Your task to perform on an android device: Search for "acer predator" on costco.com, select the first entry, and add it to the cart. Image 0: 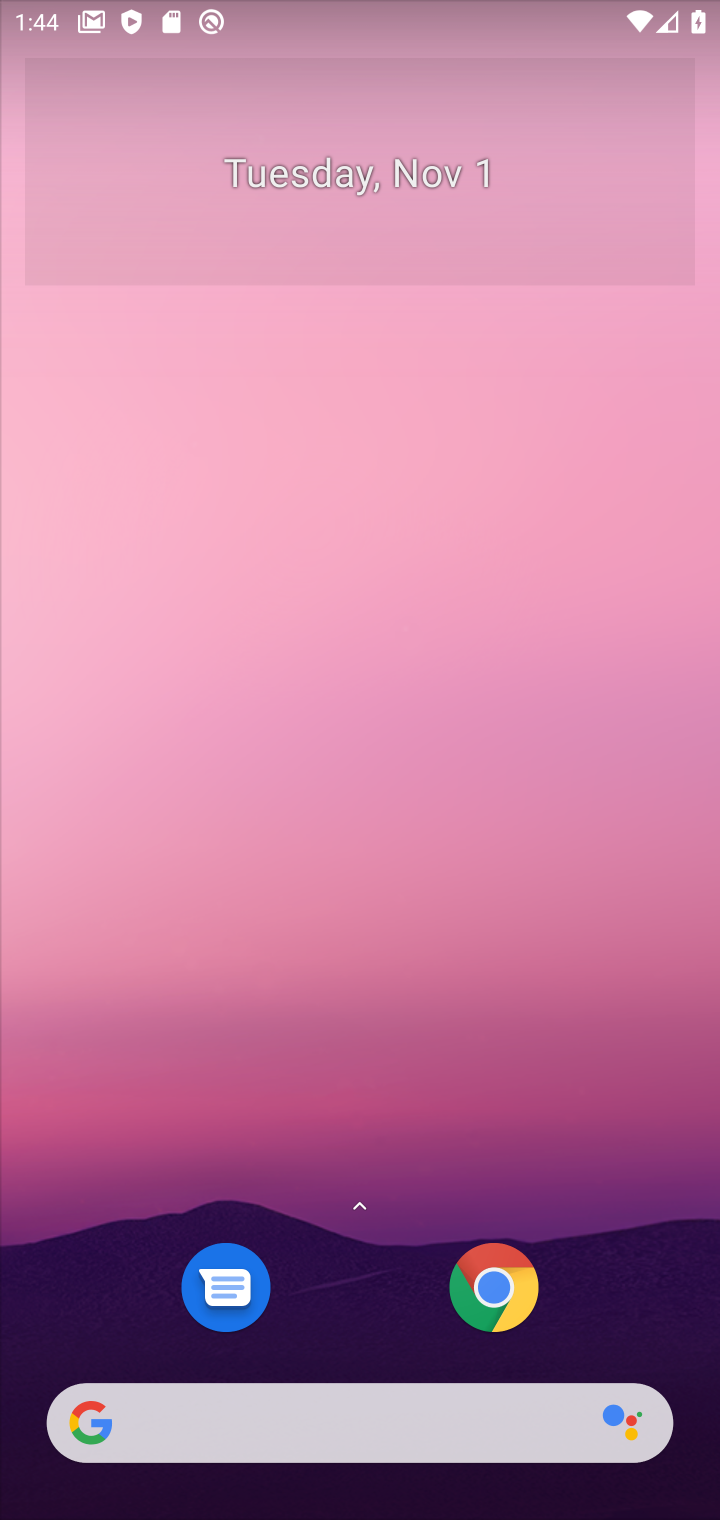
Step 0: drag from (369, 1246) to (317, 105)
Your task to perform on an android device: Search for "acer predator" on costco.com, select the first entry, and add it to the cart. Image 1: 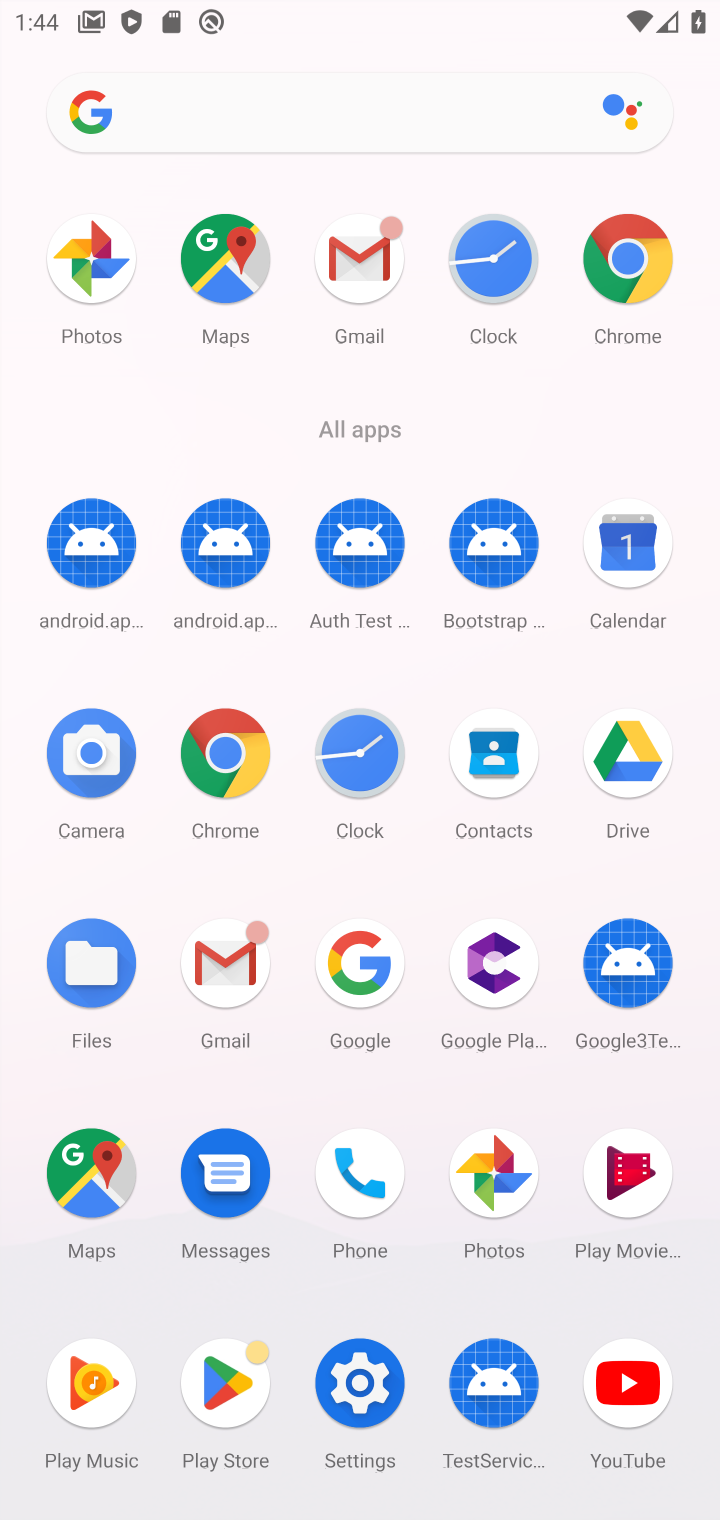
Step 1: click (228, 756)
Your task to perform on an android device: Search for "acer predator" on costco.com, select the first entry, and add it to the cart. Image 2: 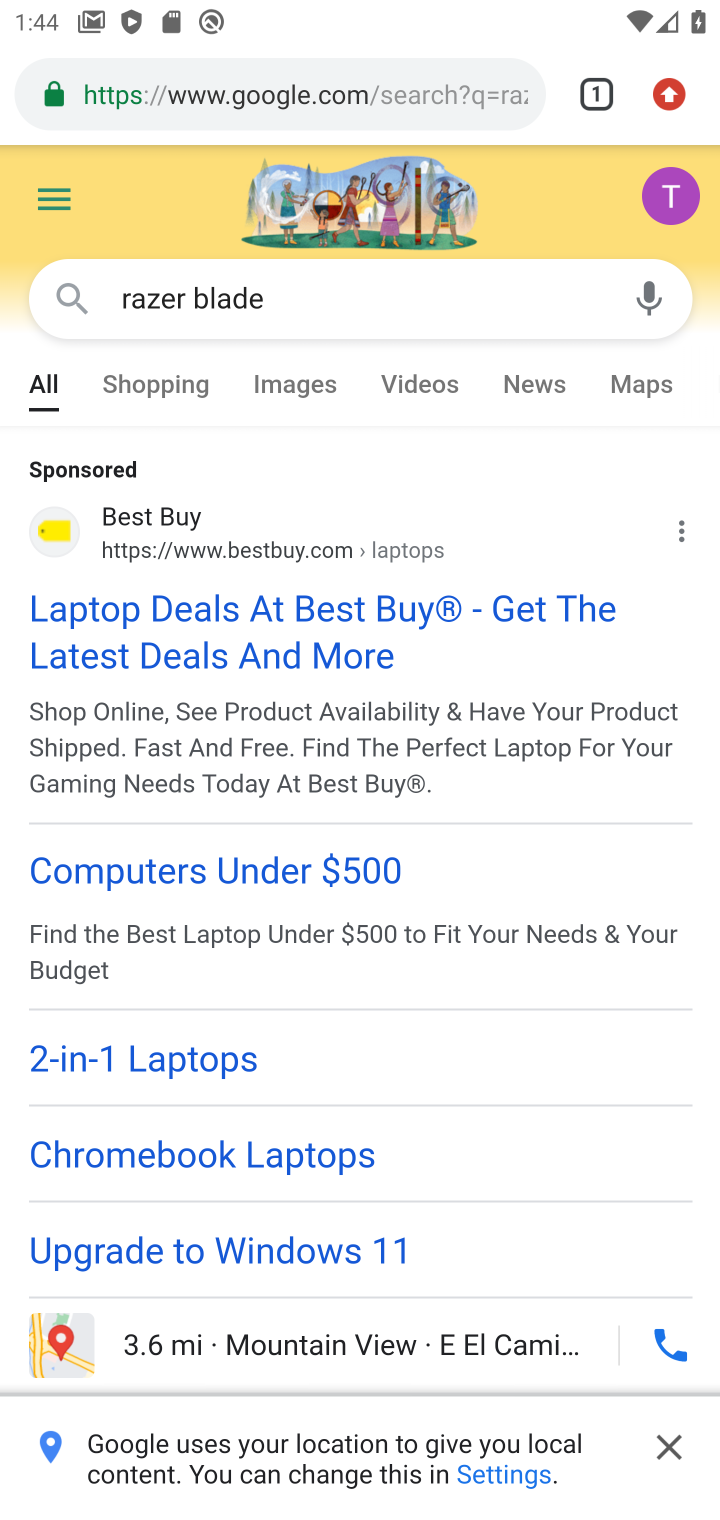
Step 2: click (447, 106)
Your task to perform on an android device: Search for "acer predator" on costco.com, select the first entry, and add it to the cart. Image 3: 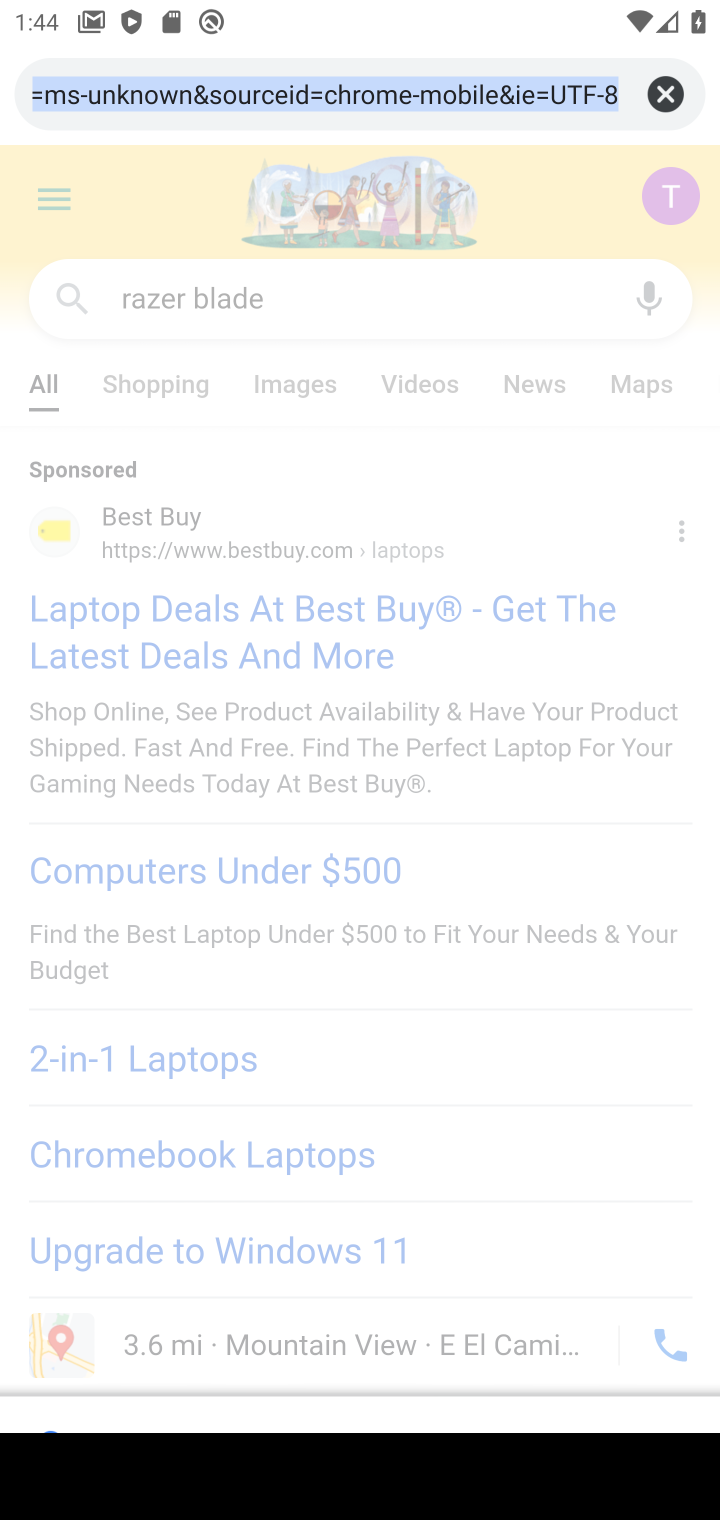
Step 3: type "costco.com"
Your task to perform on an android device: Search for "acer predator" on costco.com, select the first entry, and add it to the cart. Image 4: 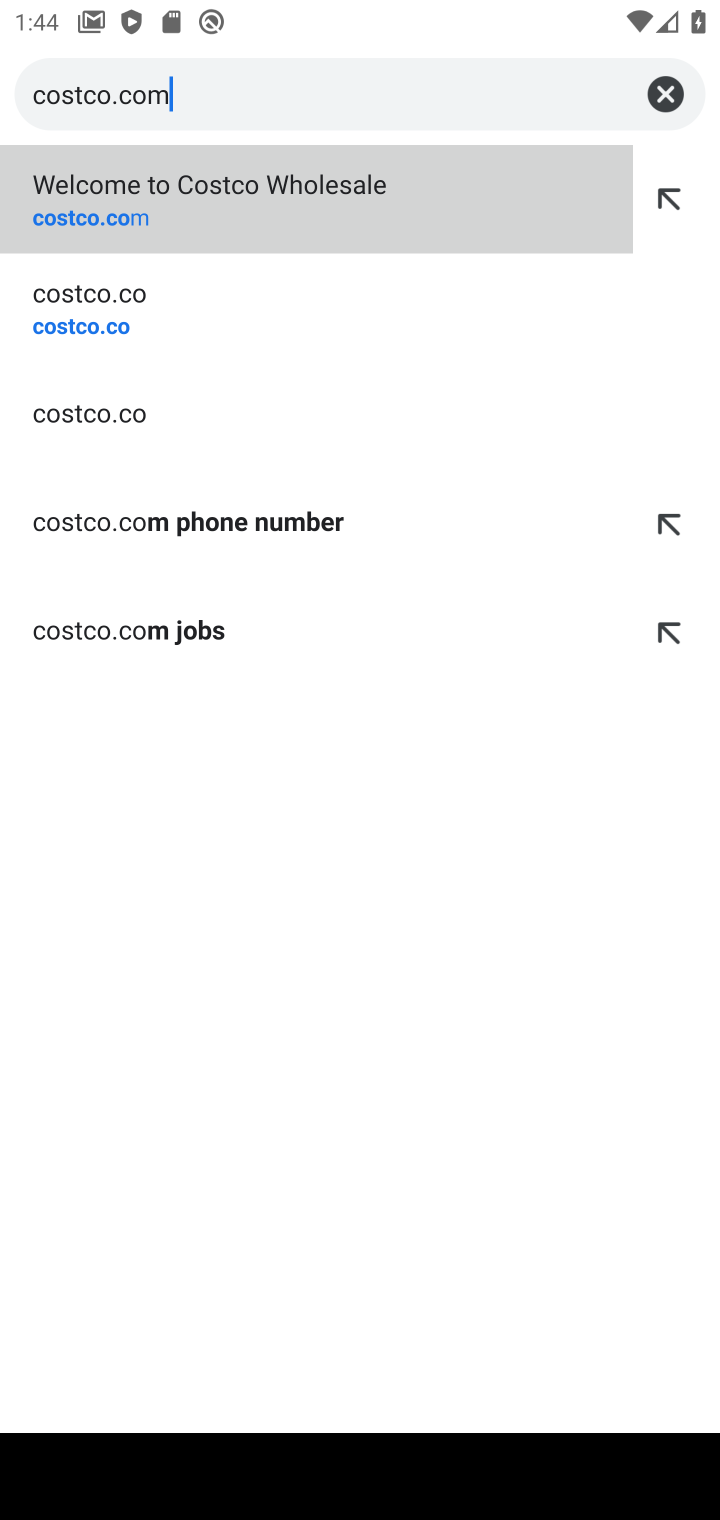
Step 4: press enter
Your task to perform on an android device: Search for "acer predator" on costco.com, select the first entry, and add it to the cart. Image 5: 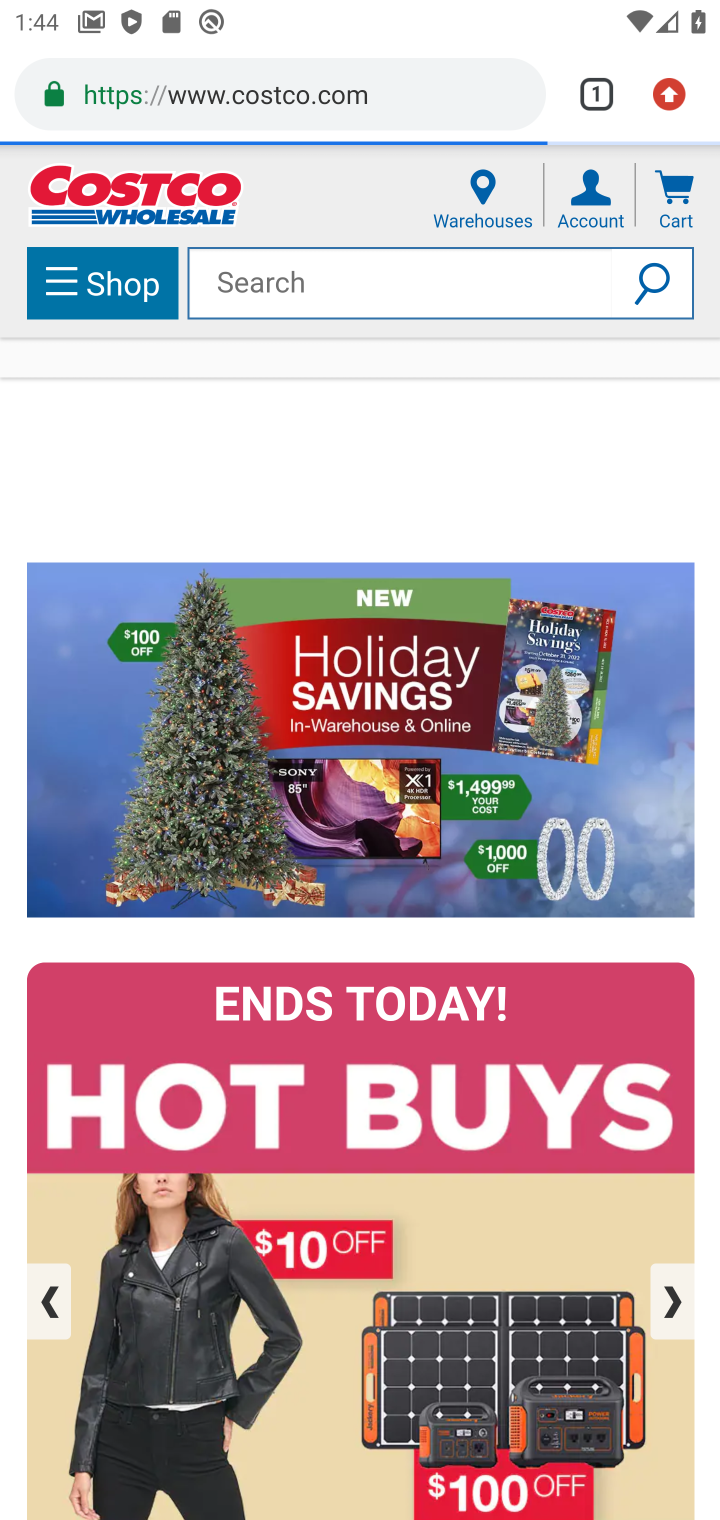
Step 5: drag from (479, 1160) to (536, 429)
Your task to perform on an android device: Search for "acer predator" on costco.com, select the first entry, and add it to the cart. Image 6: 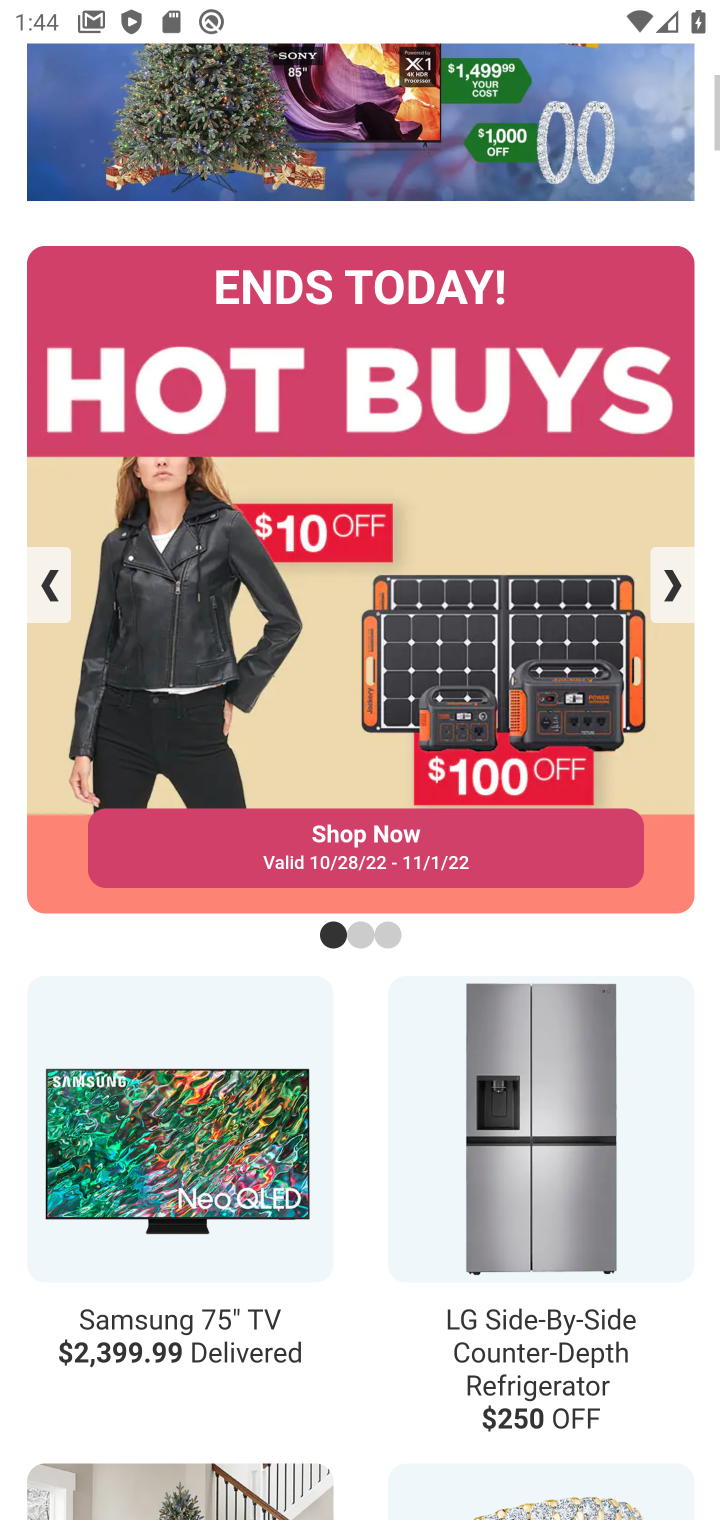
Step 6: drag from (464, 984) to (537, 1429)
Your task to perform on an android device: Search for "acer predator" on costco.com, select the first entry, and add it to the cart. Image 7: 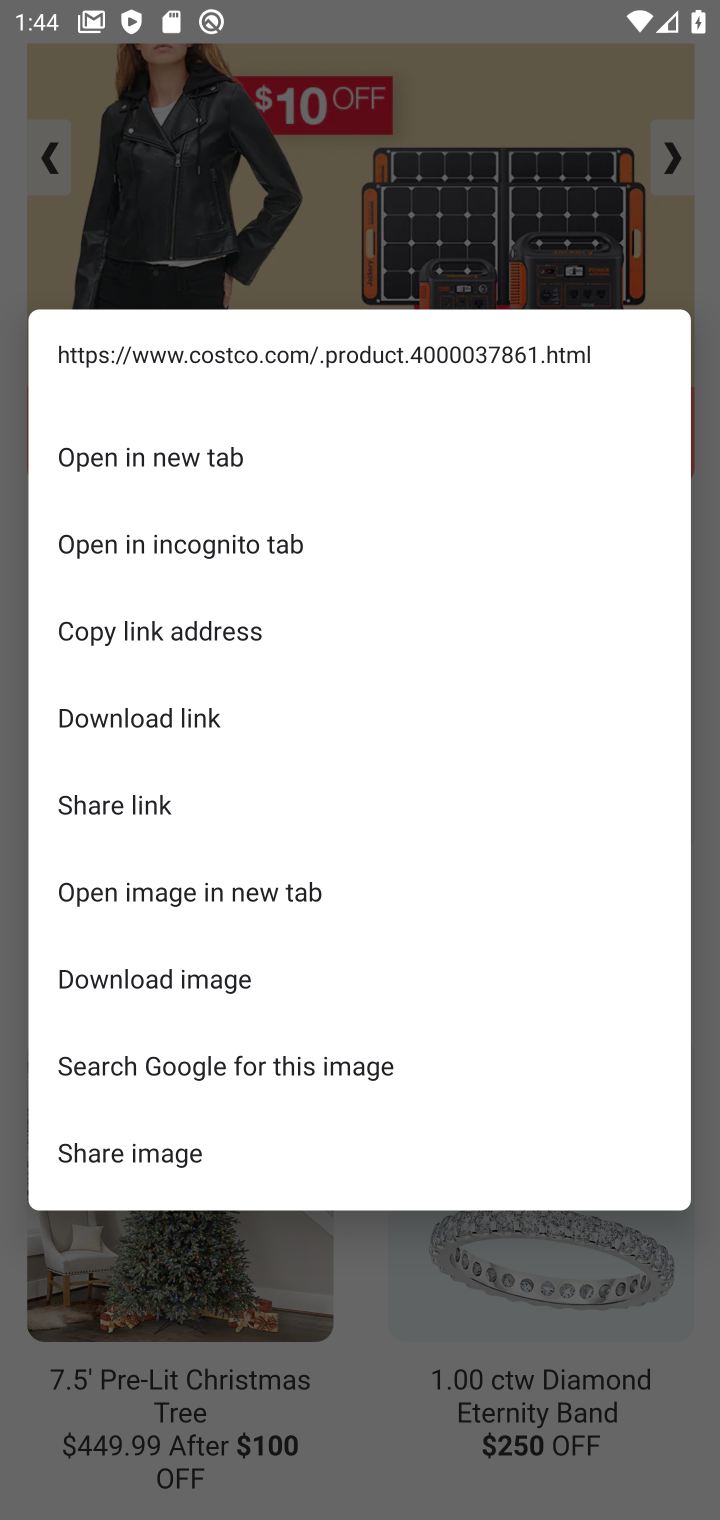
Step 7: click (460, 197)
Your task to perform on an android device: Search for "acer predator" on costco.com, select the first entry, and add it to the cart. Image 8: 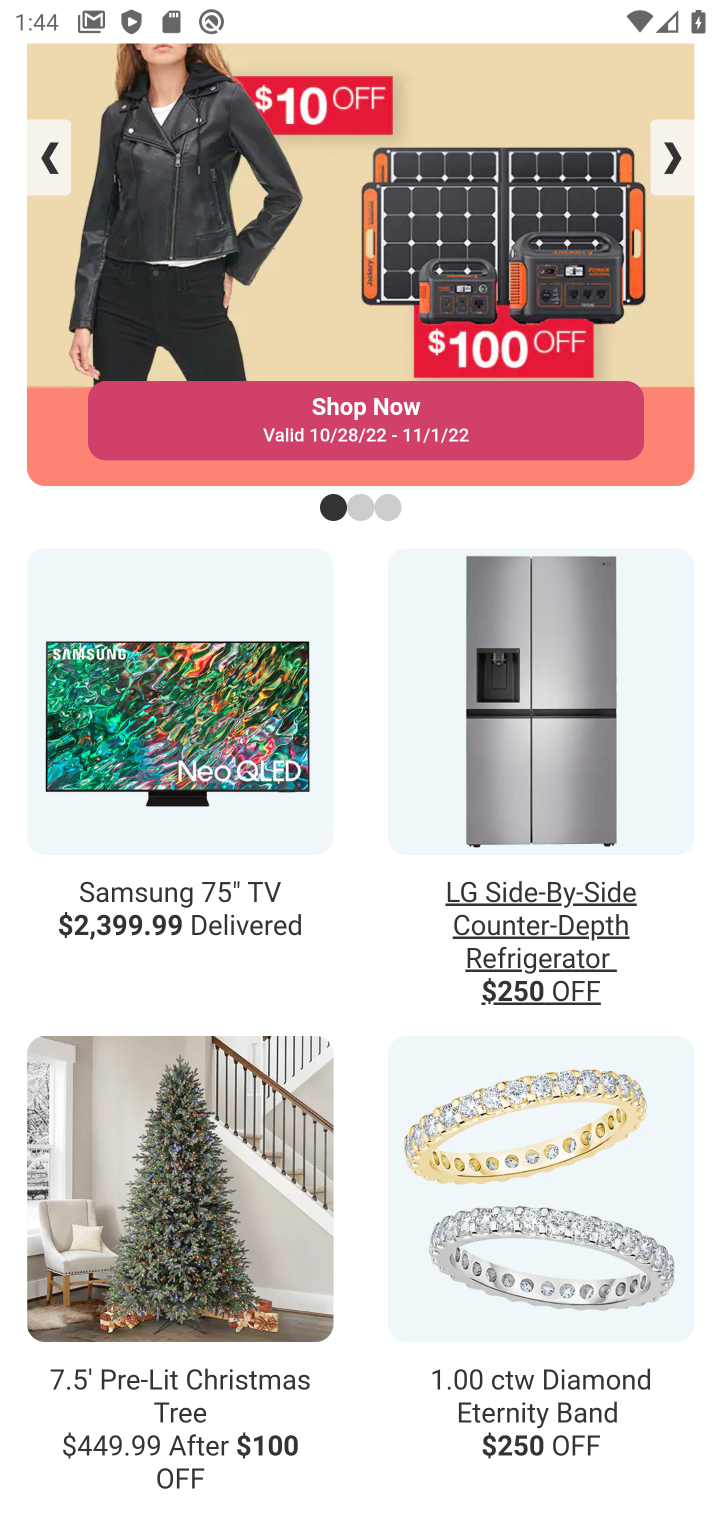
Step 8: drag from (391, 331) to (634, 1395)
Your task to perform on an android device: Search for "acer predator" on costco.com, select the first entry, and add it to the cart. Image 9: 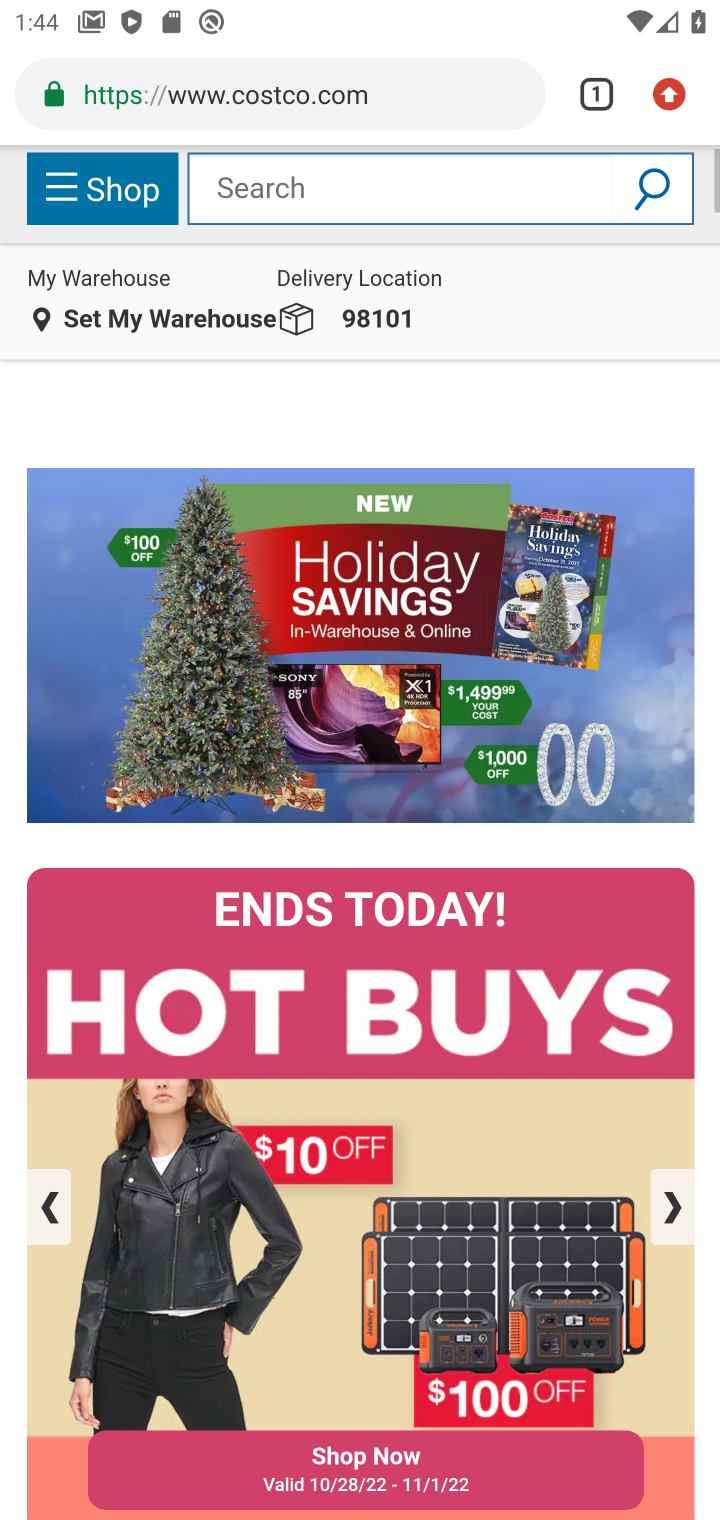
Step 9: click (397, 182)
Your task to perform on an android device: Search for "acer predator" on costco.com, select the first entry, and add it to the cart. Image 10: 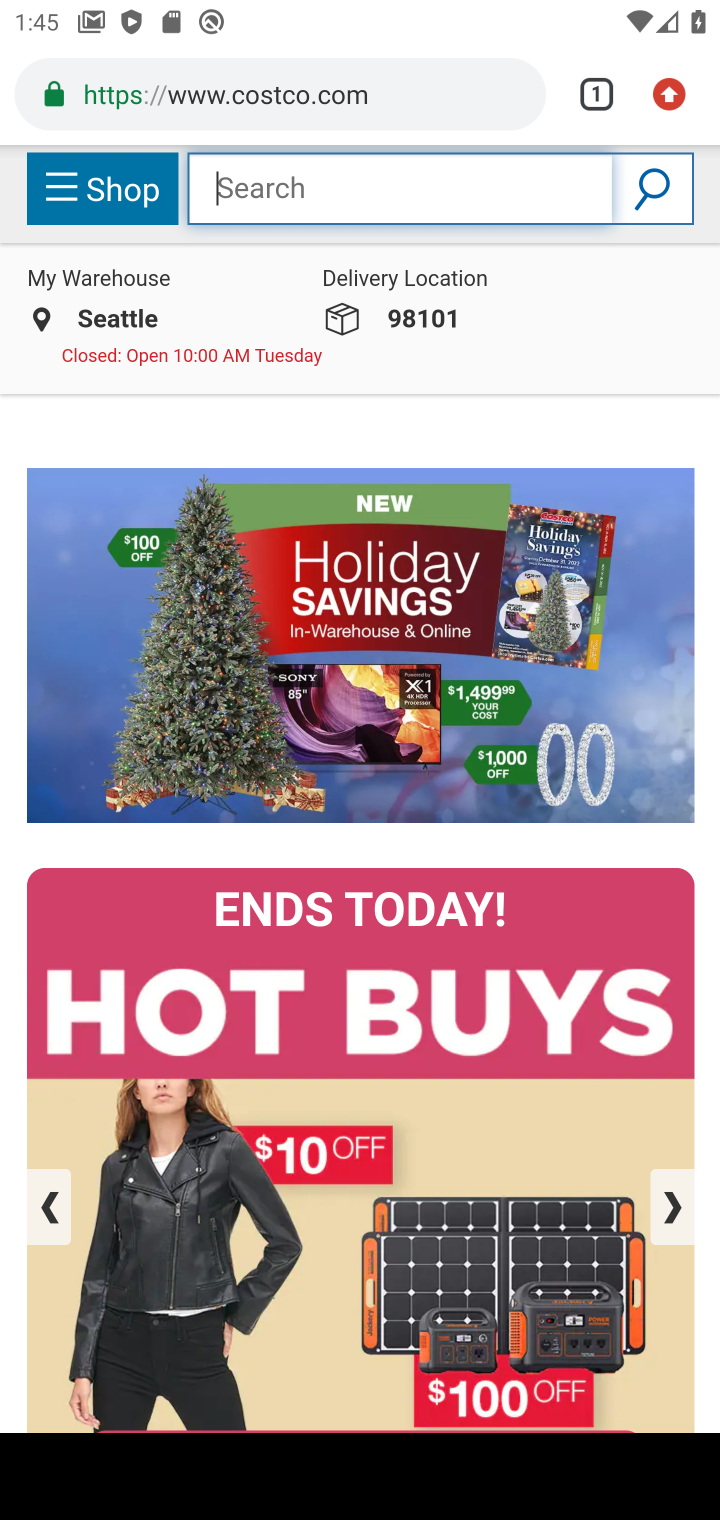
Step 10: type "acer predator"
Your task to perform on an android device: Search for "acer predator" on costco.com, select the first entry, and add it to the cart. Image 11: 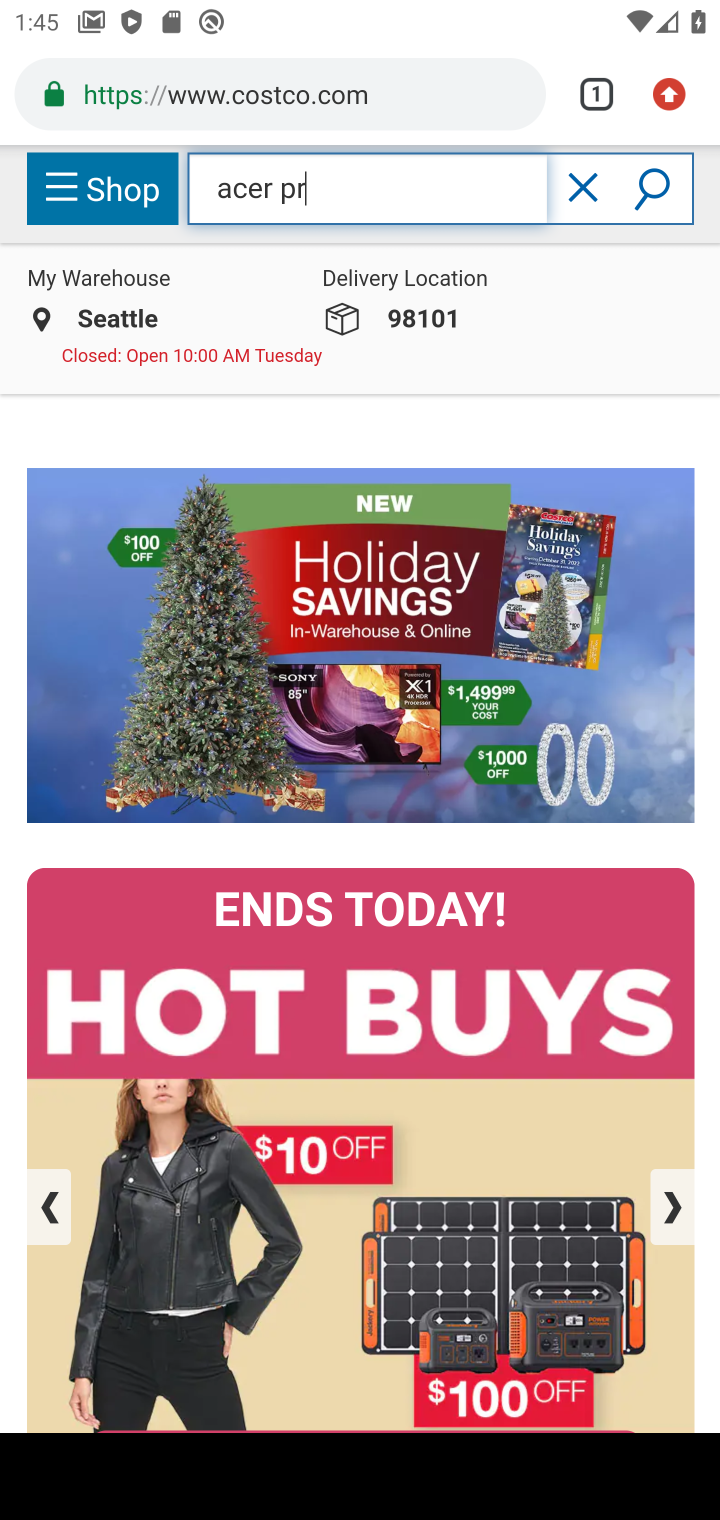
Step 11: press enter
Your task to perform on an android device: Search for "acer predator" on costco.com, select the first entry, and add it to the cart. Image 12: 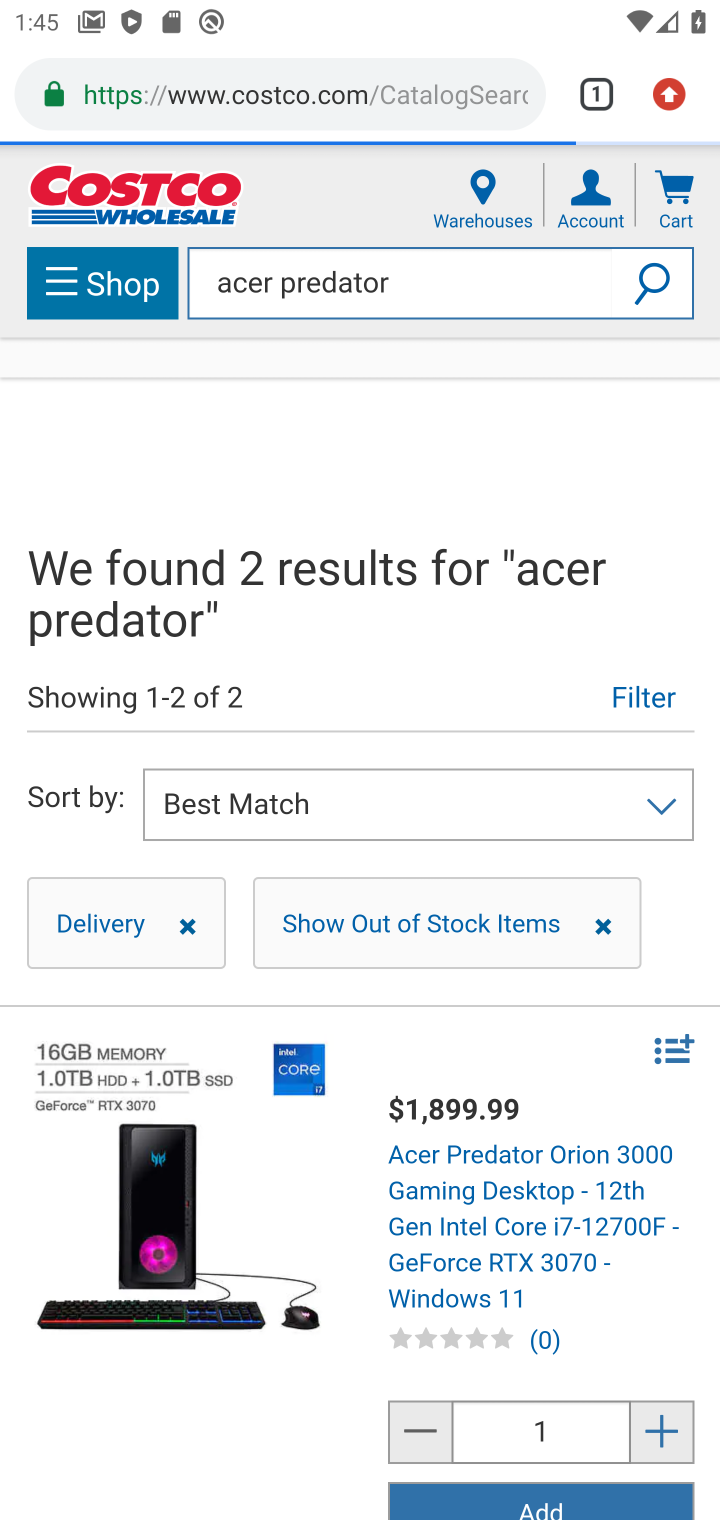
Step 12: drag from (459, 1305) to (455, 490)
Your task to perform on an android device: Search for "acer predator" on costco.com, select the first entry, and add it to the cart. Image 13: 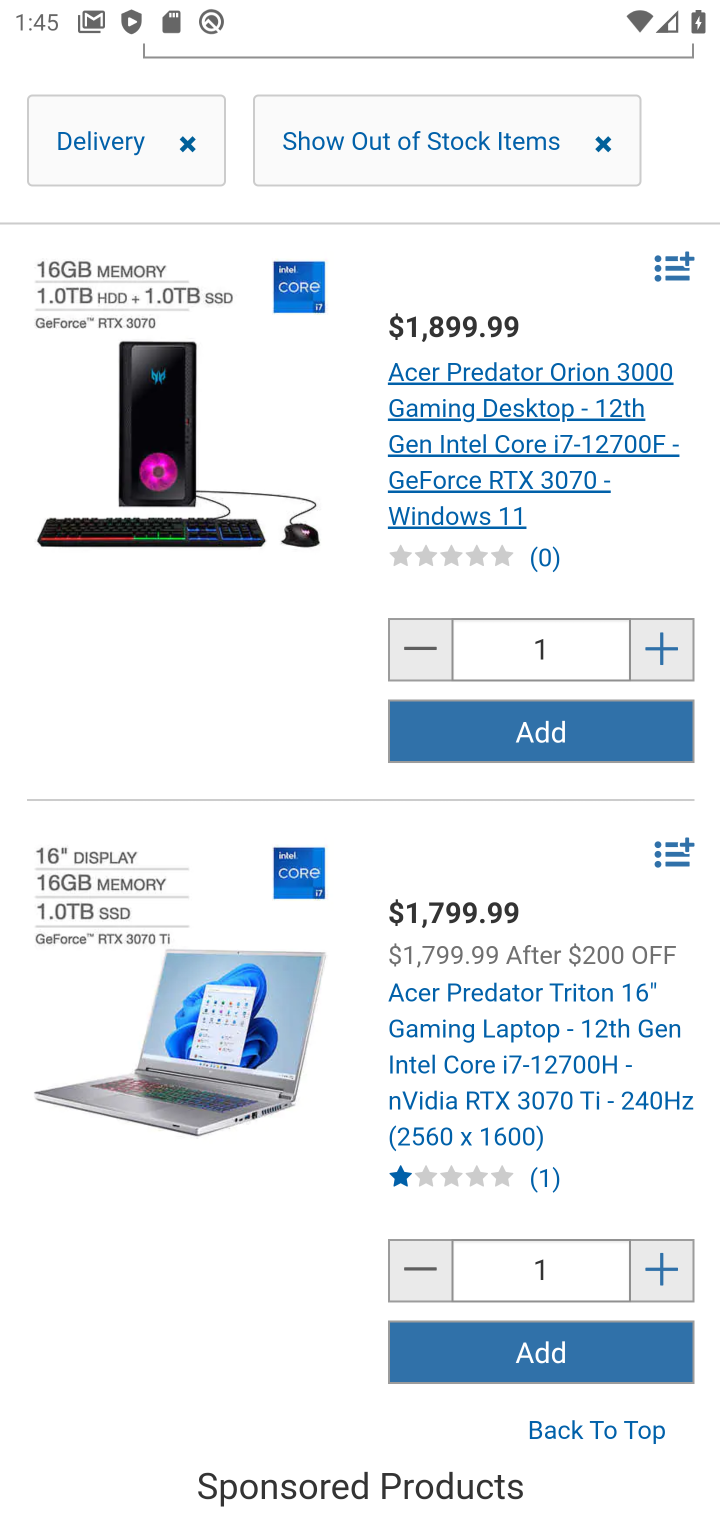
Step 13: click (570, 736)
Your task to perform on an android device: Search for "acer predator" on costco.com, select the first entry, and add it to the cart. Image 14: 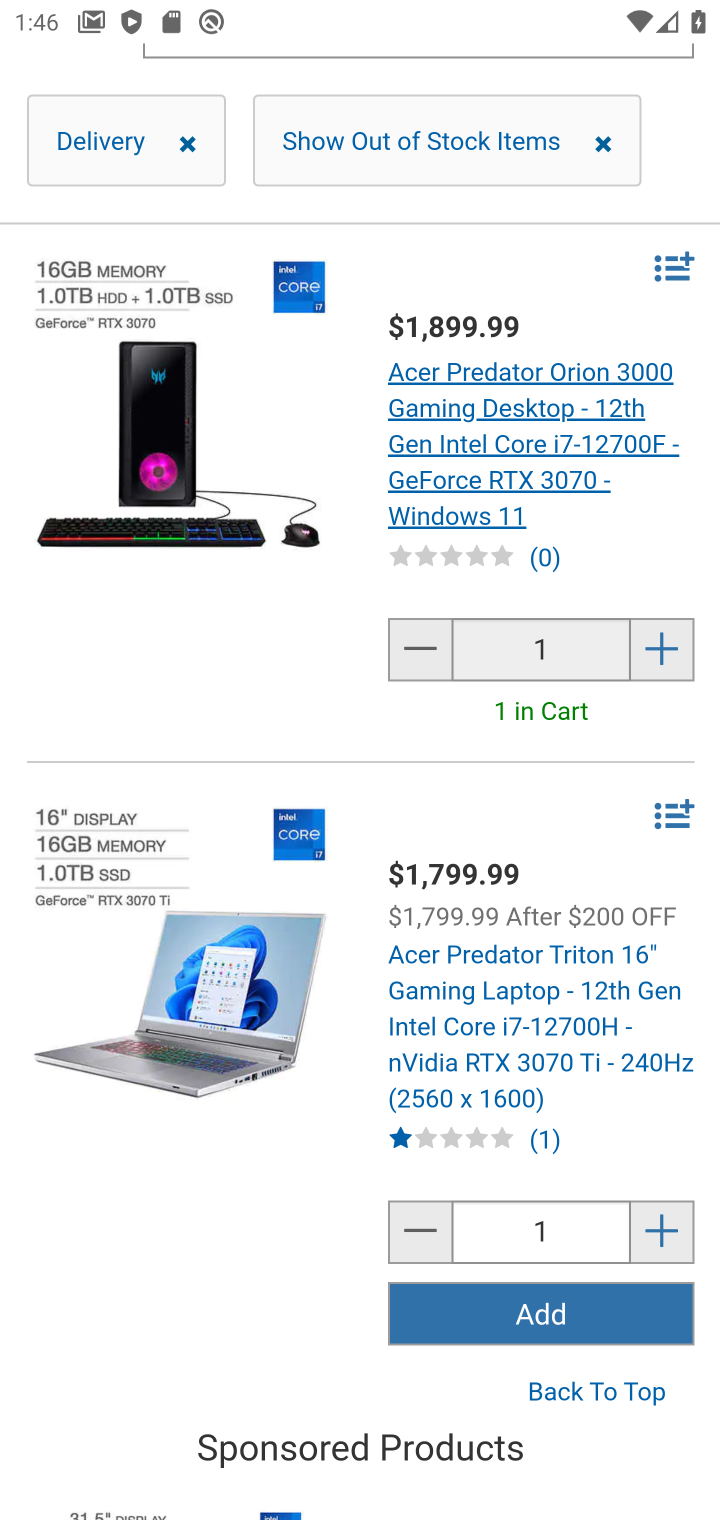
Step 14: task complete